Your task to perform on an android device: turn off priority inbox in the gmail app Image 0: 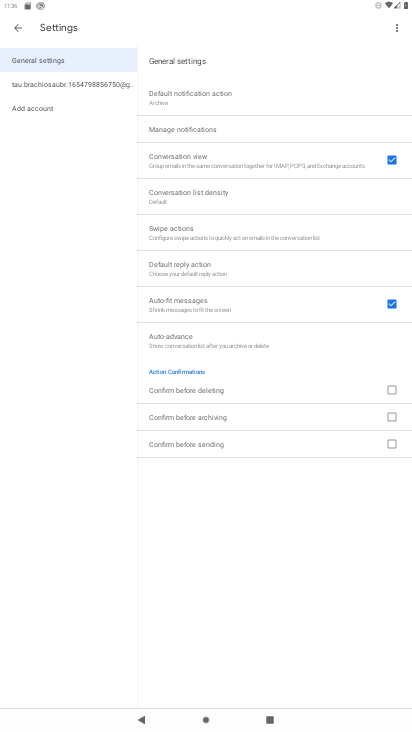
Step 0: press home button
Your task to perform on an android device: turn off priority inbox in the gmail app Image 1: 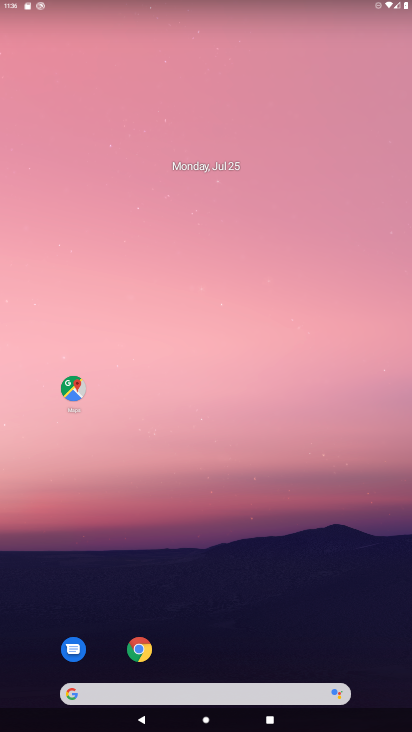
Step 1: drag from (369, 666) to (342, 273)
Your task to perform on an android device: turn off priority inbox in the gmail app Image 2: 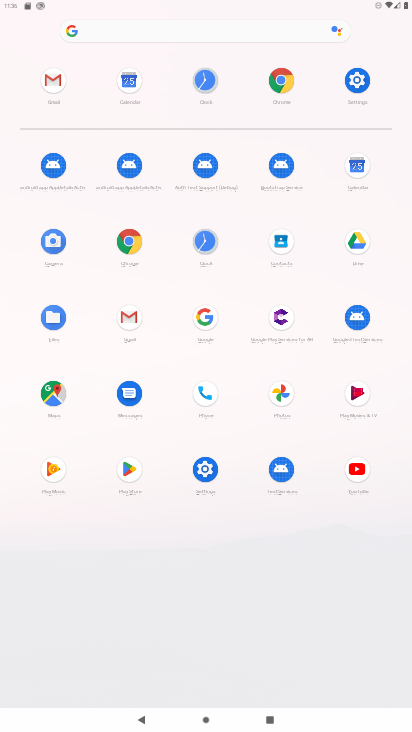
Step 2: click (128, 314)
Your task to perform on an android device: turn off priority inbox in the gmail app Image 3: 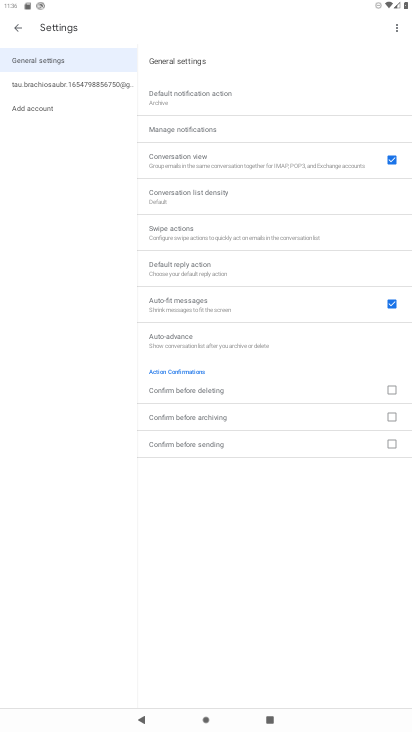
Step 3: click (52, 85)
Your task to perform on an android device: turn off priority inbox in the gmail app Image 4: 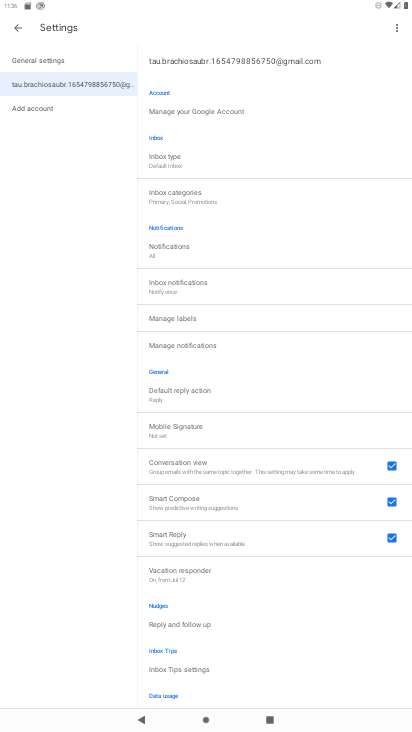
Step 4: click (164, 157)
Your task to perform on an android device: turn off priority inbox in the gmail app Image 5: 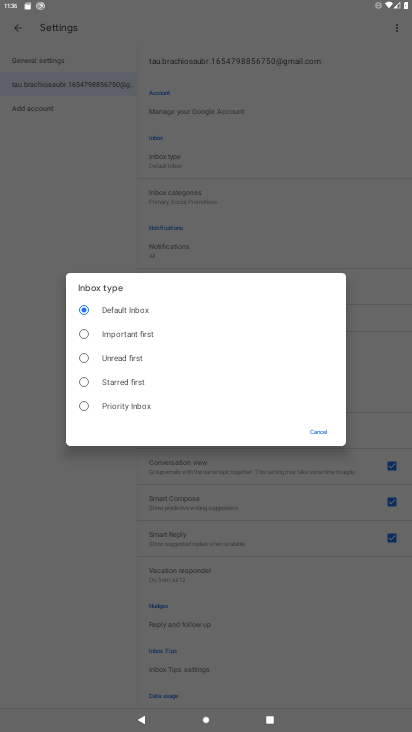
Step 5: task complete